Your task to perform on an android device: empty trash in the gmail app Image 0: 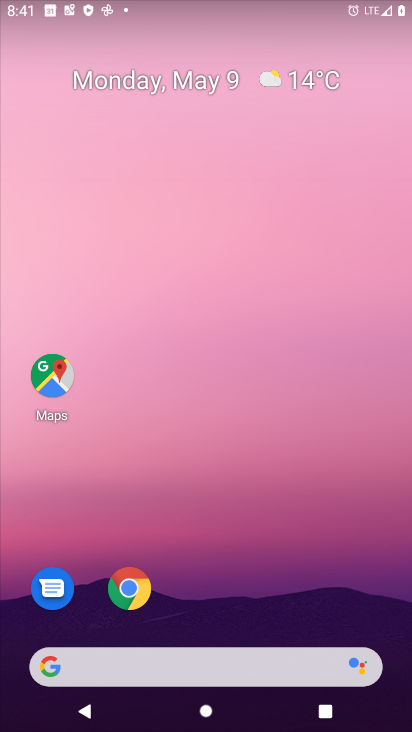
Step 0: drag from (342, 614) to (339, 45)
Your task to perform on an android device: empty trash in the gmail app Image 1: 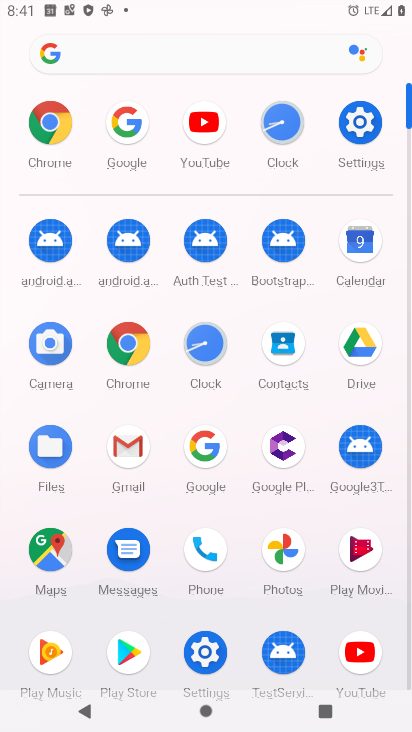
Step 1: click (125, 460)
Your task to perform on an android device: empty trash in the gmail app Image 2: 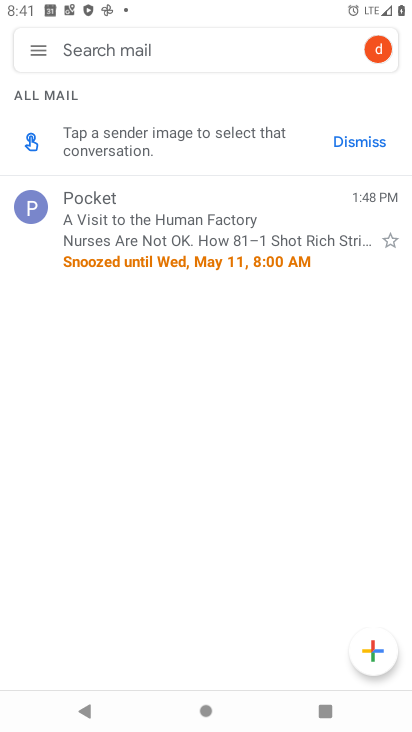
Step 2: click (41, 40)
Your task to perform on an android device: empty trash in the gmail app Image 3: 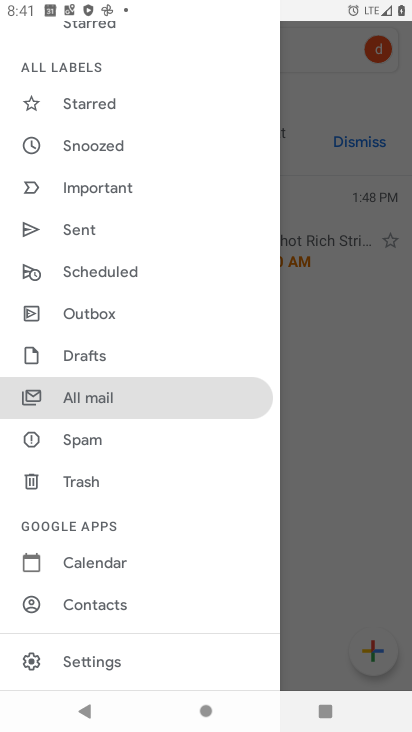
Step 3: click (109, 492)
Your task to perform on an android device: empty trash in the gmail app Image 4: 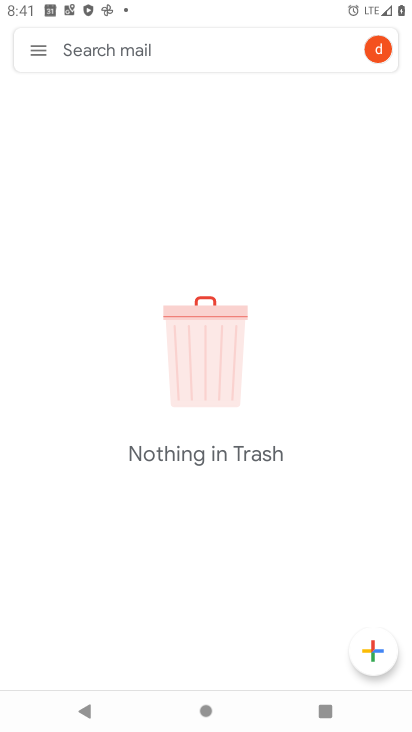
Step 4: task complete